Your task to perform on an android device: Show me popular games on the Play Store Image 0: 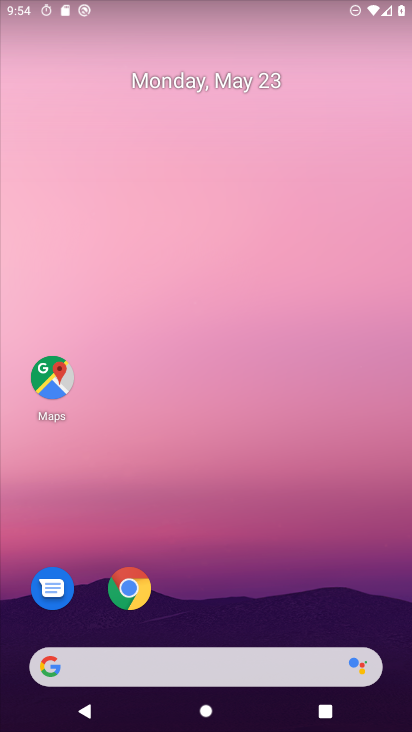
Step 0: drag from (403, 671) to (353, 221)
Your task to perform on an android device: Show me popular games on the Play Store Image 1: 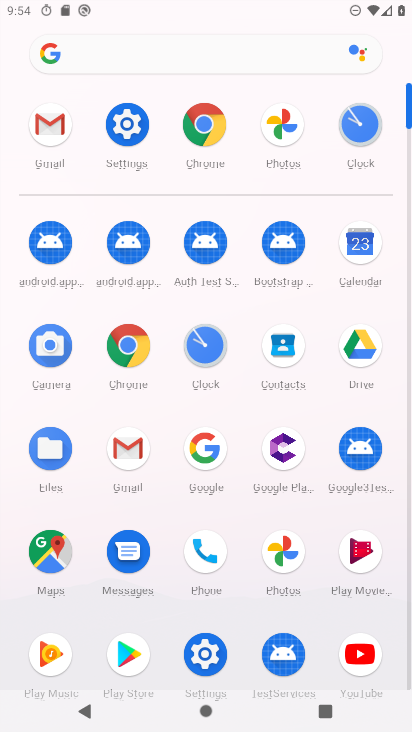
Step 1: click (128, 658)
Your task to perform on an android device: Show me popular games on the Play Store Image 2: 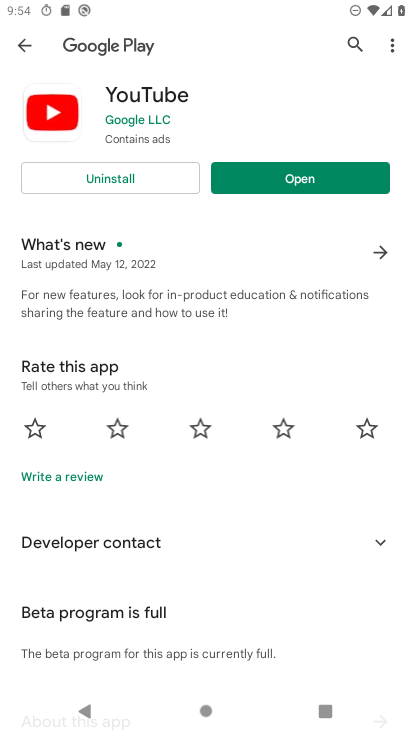
Step 2: click (25, 39)
Your task to perform on an android device: Show me popular games on the Play Store Image 3: 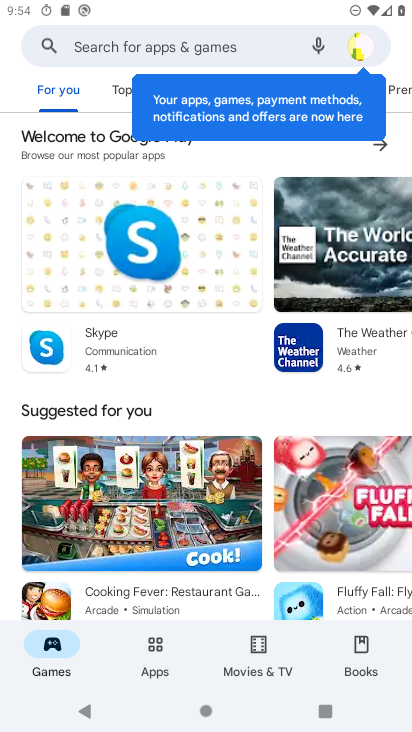
Step 3: click (136, 38)
Your task to perform on an android device: Show me popular games on the Play Store Image 4: 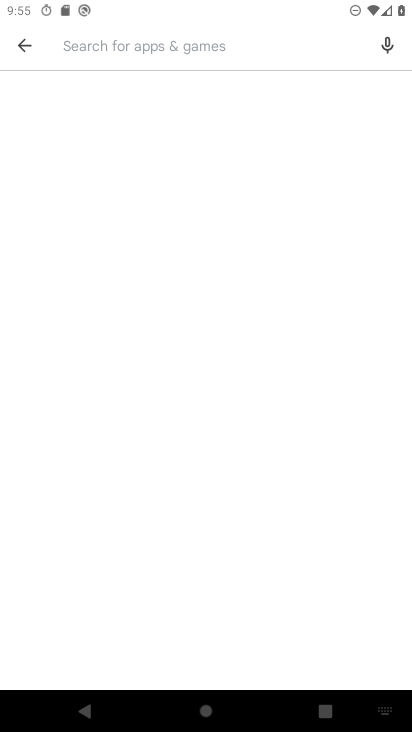
Step 4: type " popular games"
Your task to perform on an android device: Show me popular games on the Play Store Image 5: 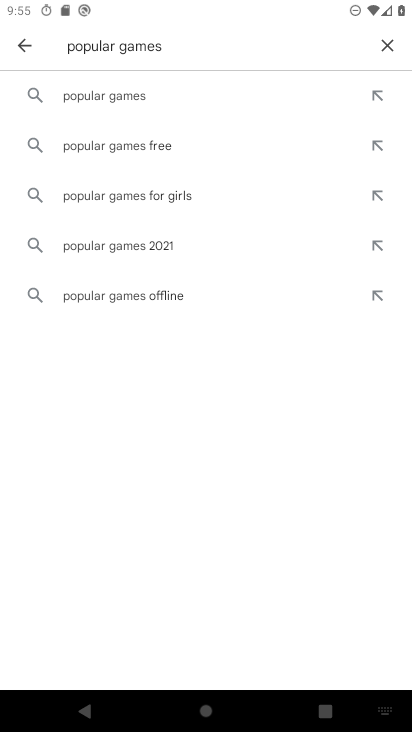
Step 5: click (132, 97)
Your task to perform on an android device: Show me popular games on the Play Store Image 6: 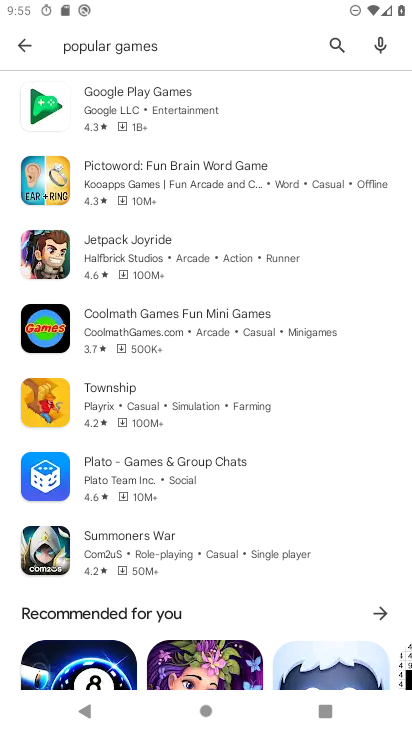
Step 6: task complete